Your task to perform on an android device: Check the weather Image 0: 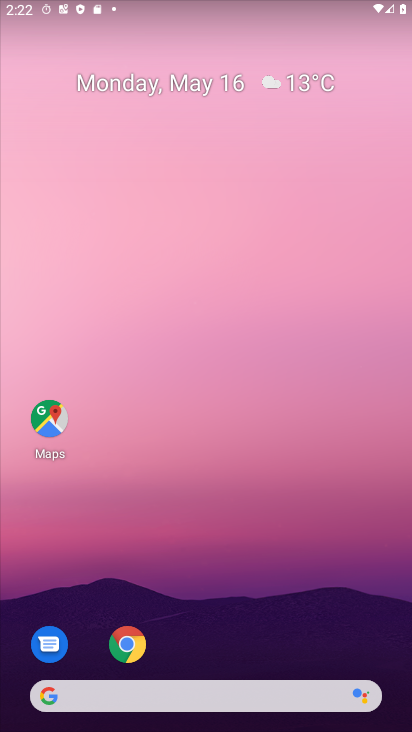
Step 0: drag from (284, 652) to (159, 54)
Your task to perform on an android device: Check the weather Image 1: 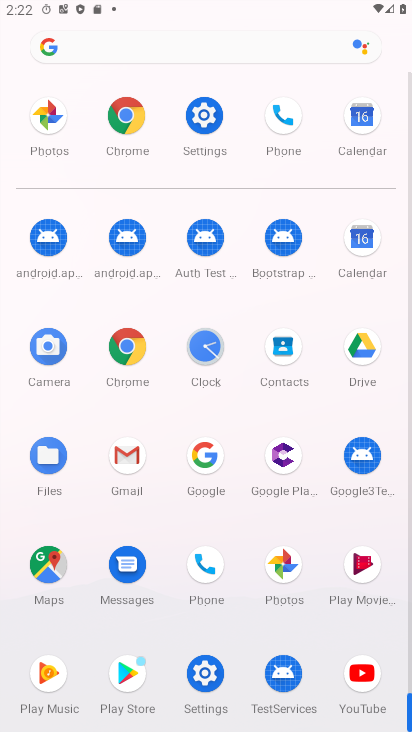
Step 1: click (201, 470)
Your task to perform on an android device: Check the weather Image 2: 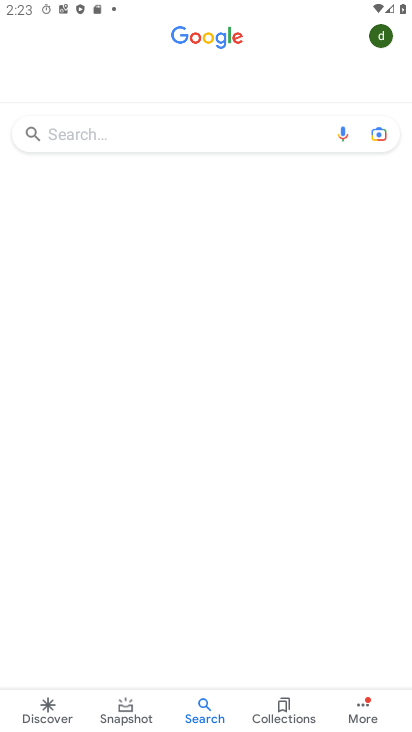
Step 2: click (129, 140)
Your task to perform on an android device: Check the weather Image 3: 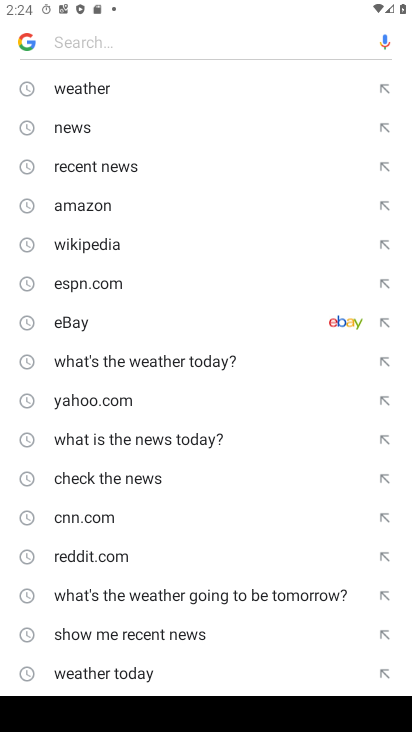
Step 3: click (95, 83)
Your task to perform on an android device: Check the weather Image 4: 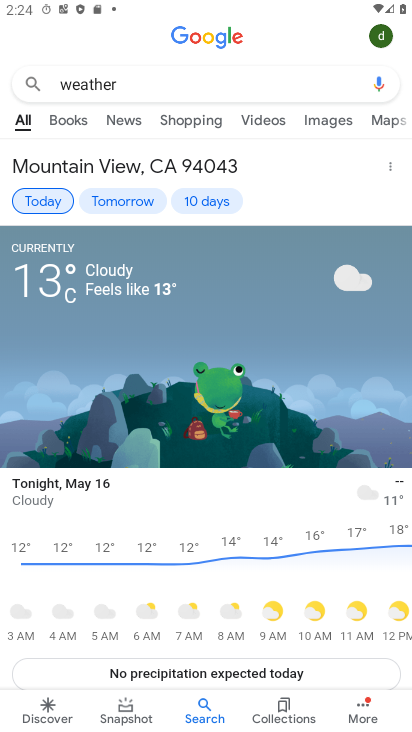
Step 4: task complete